Your task to perform on an android device: Empty the shopping cart on newegg. Search for lenovo thinkpad on newegg, select the first entry, add it to the cart, then select checkout. Image 0: 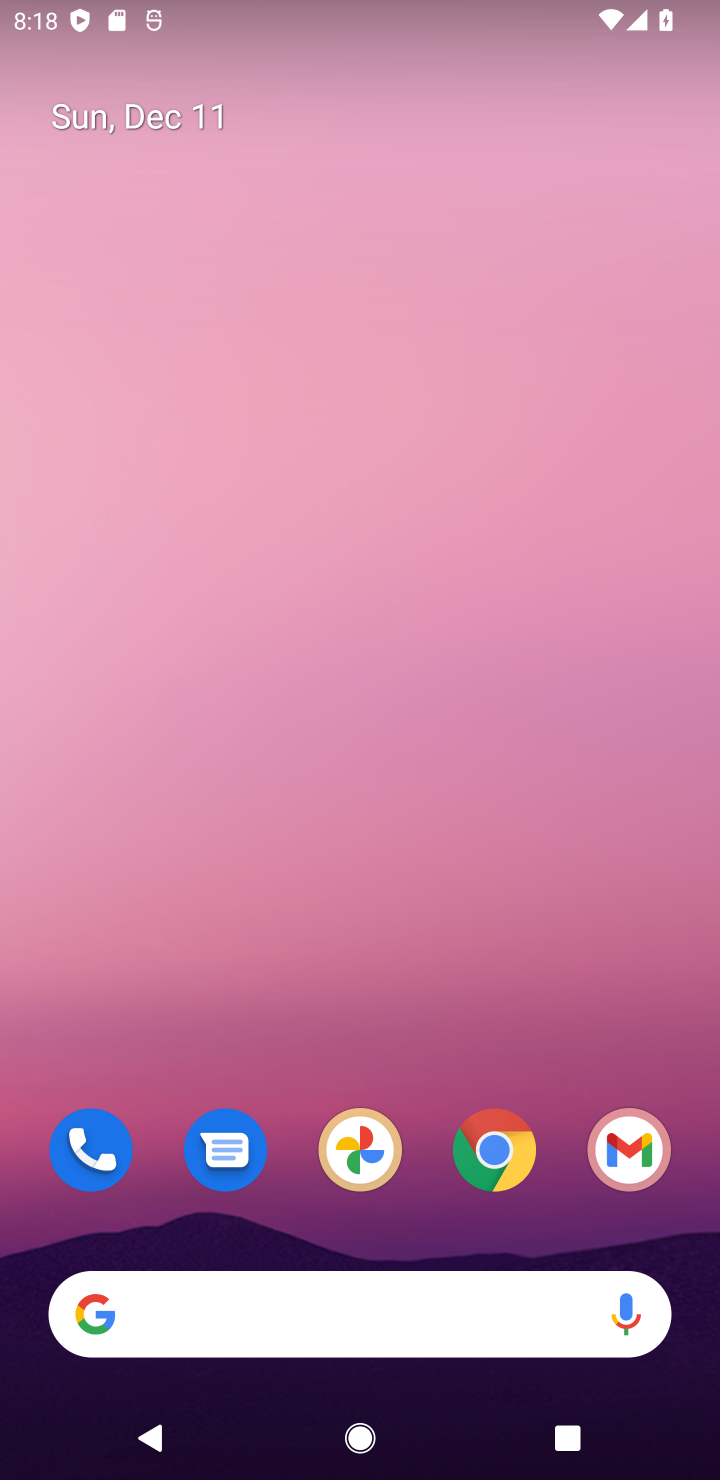
Step 0: click (497, 1152)
Your task to perform on an android device: Empty the shopping cart on newegg. Search for lenovo thinkpad on newegg, select the first entry, add it to the cart, then select checkout. Image 1: 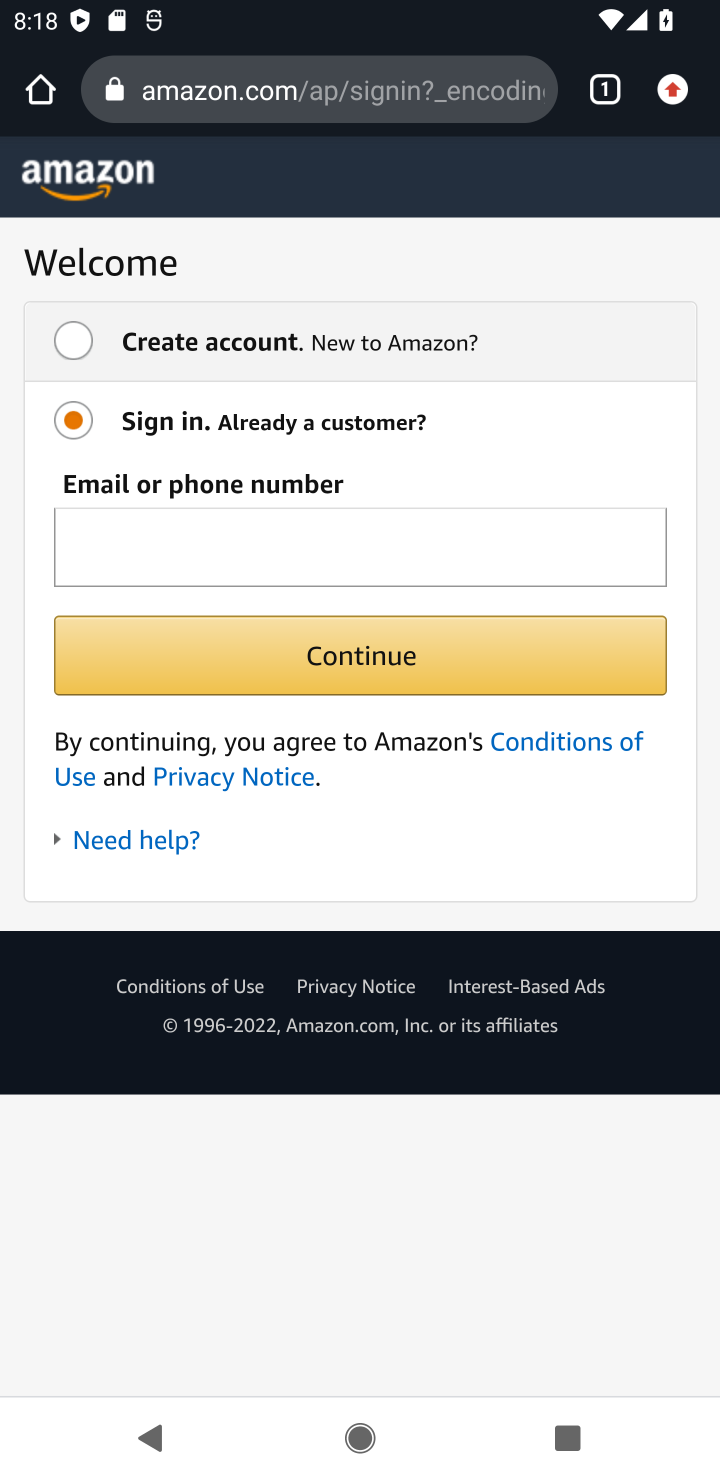
Step 1: click (359, 90)
Your task to perform on an android device: Empty the shopping cart on newegg. Search for lenovo thinkpad on newegg, select the first entry, add it to the cart, then select checkout. Image 2: 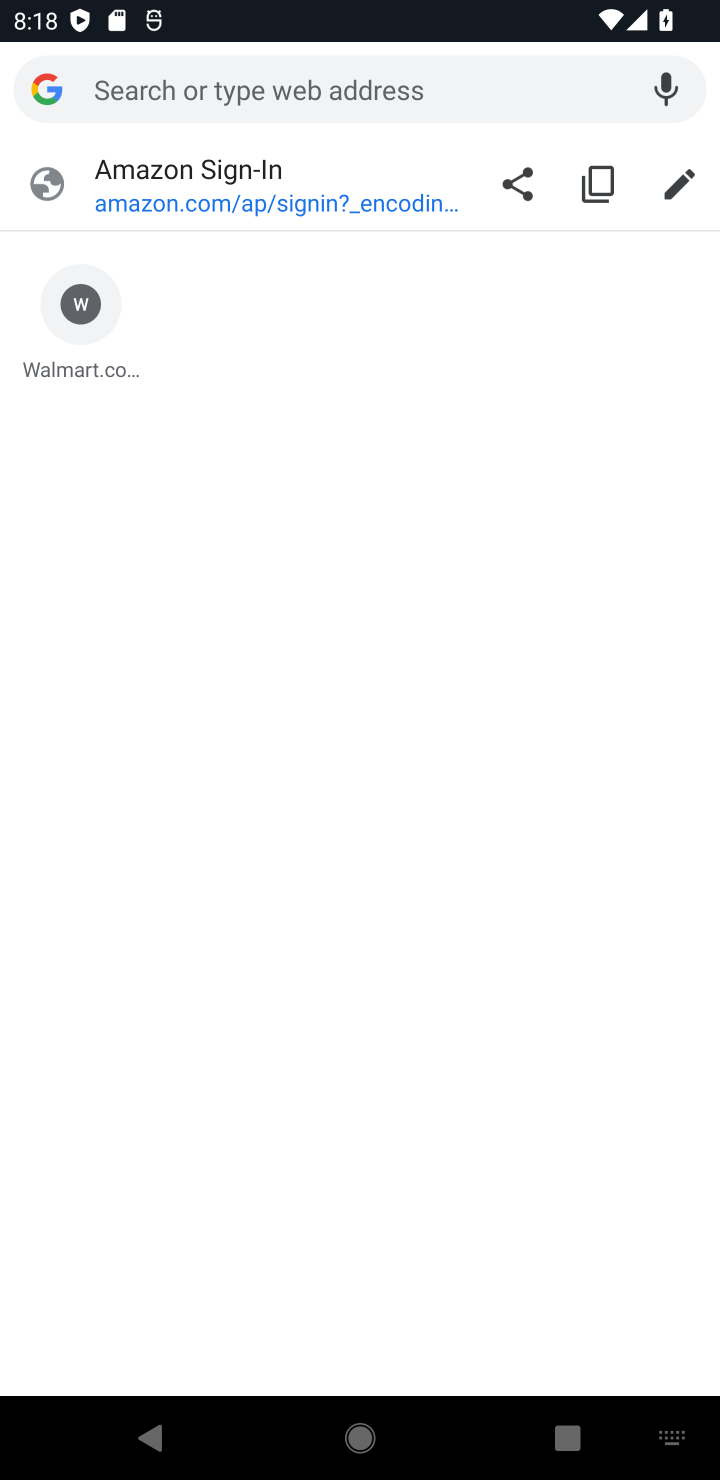
Step 2: type "newegg"
Your task to perform on an android device: Empty the shopping cart on newegg. Search for lenovo thinkpad on newegg, select the first entry, add it to the cart, then select checkout. Image 3: 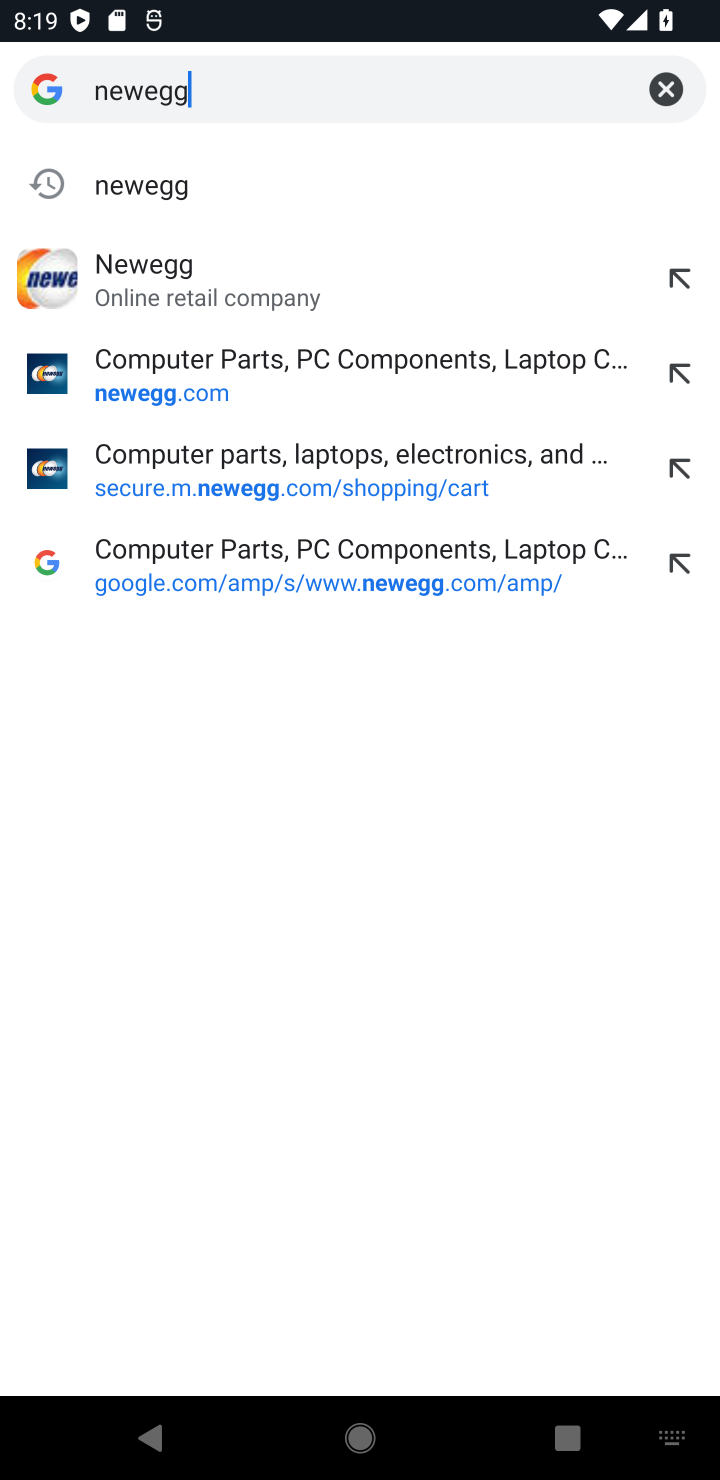
Step 3: click (146, 270)
Your task to perform on an android device: Empty the shopping cart on newegg. Search for lenovo thinkpad on newegg, select the first entry, add it to the cart, then select checkout. Image 4: 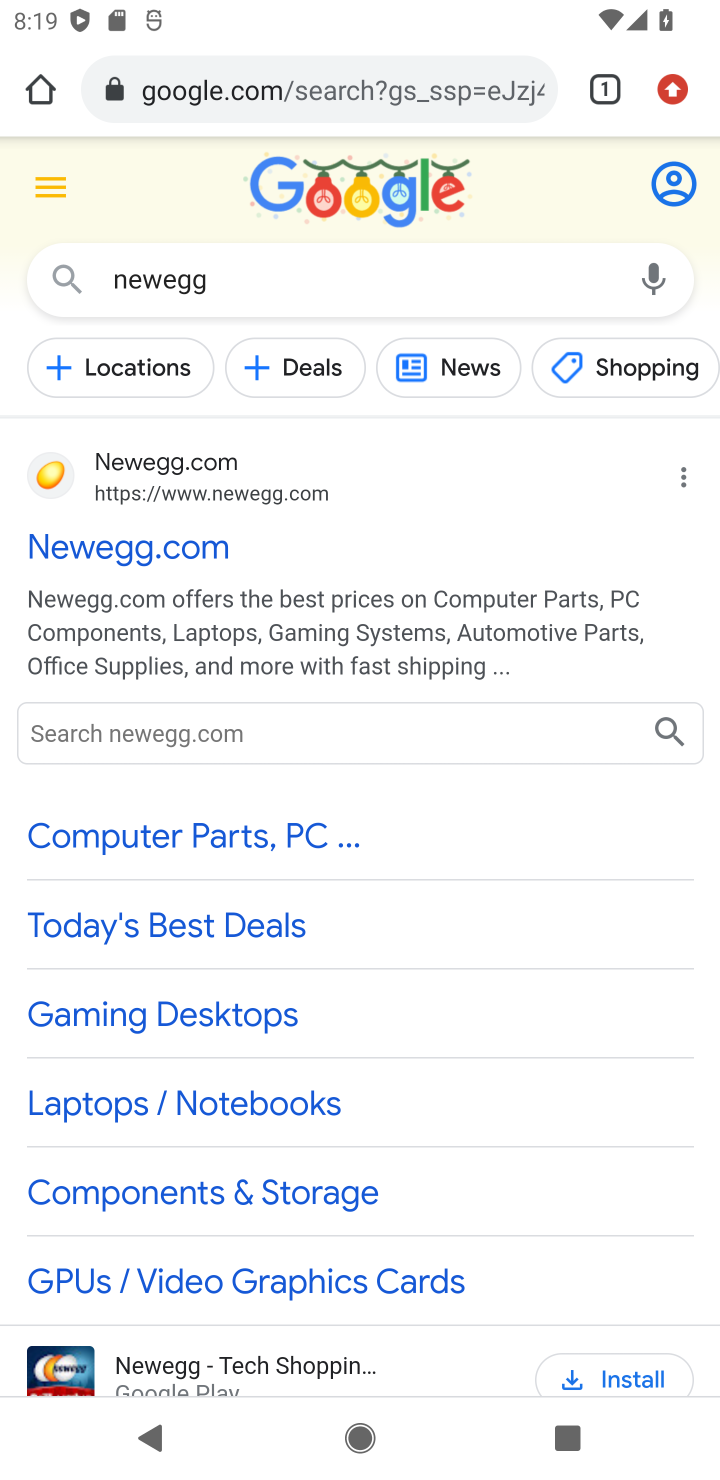
Step 4: click (162, 553)
Your task to perform on an android device: Empty the shopping cart on newegg. Search for lenovo thinkpad on newegg, select the first entry, add it to the cart, then select checkout. Image 5: 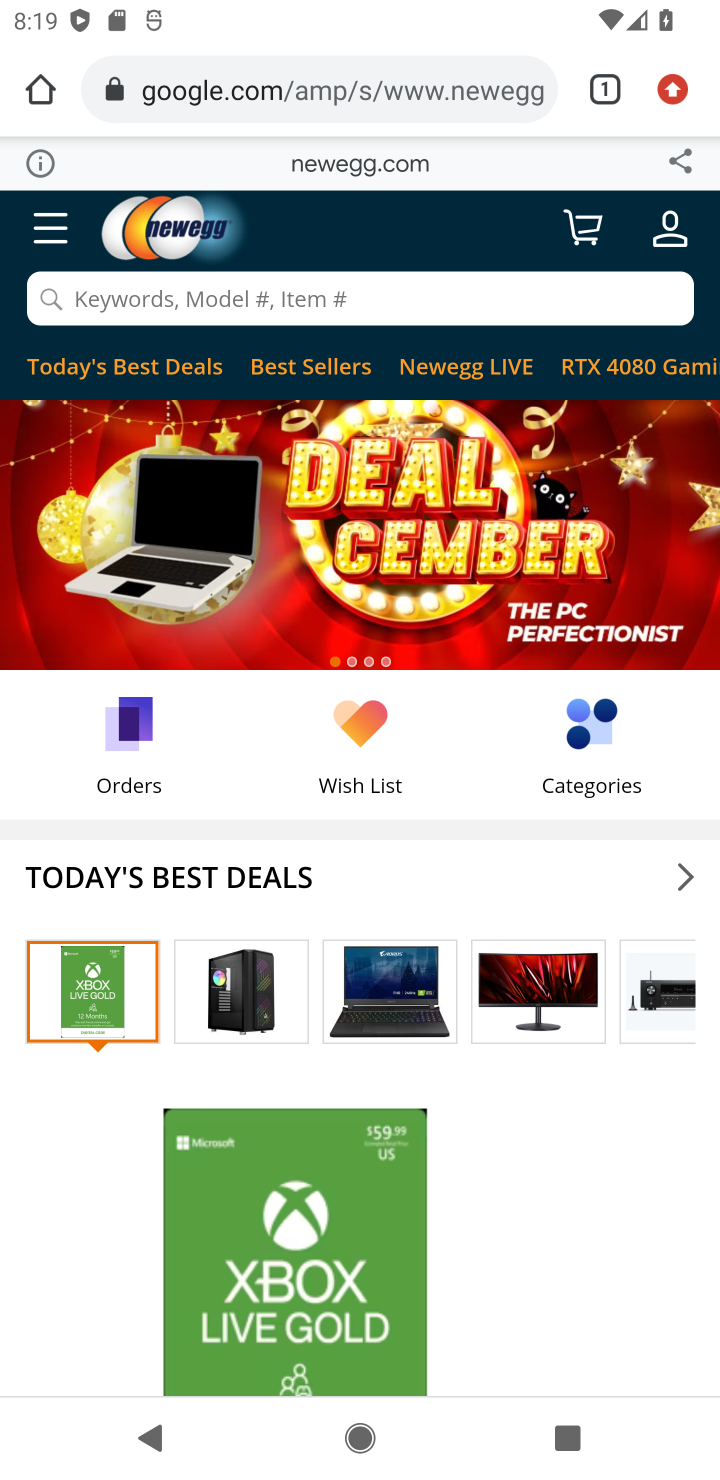
Step 5: click (591, 230)
Your task to perform on an android device: Empty the shopping cart on newegg. Search for lenovo thinkpad on newegg, select the first entry, add it to the cart, then select checkout. Image 6: 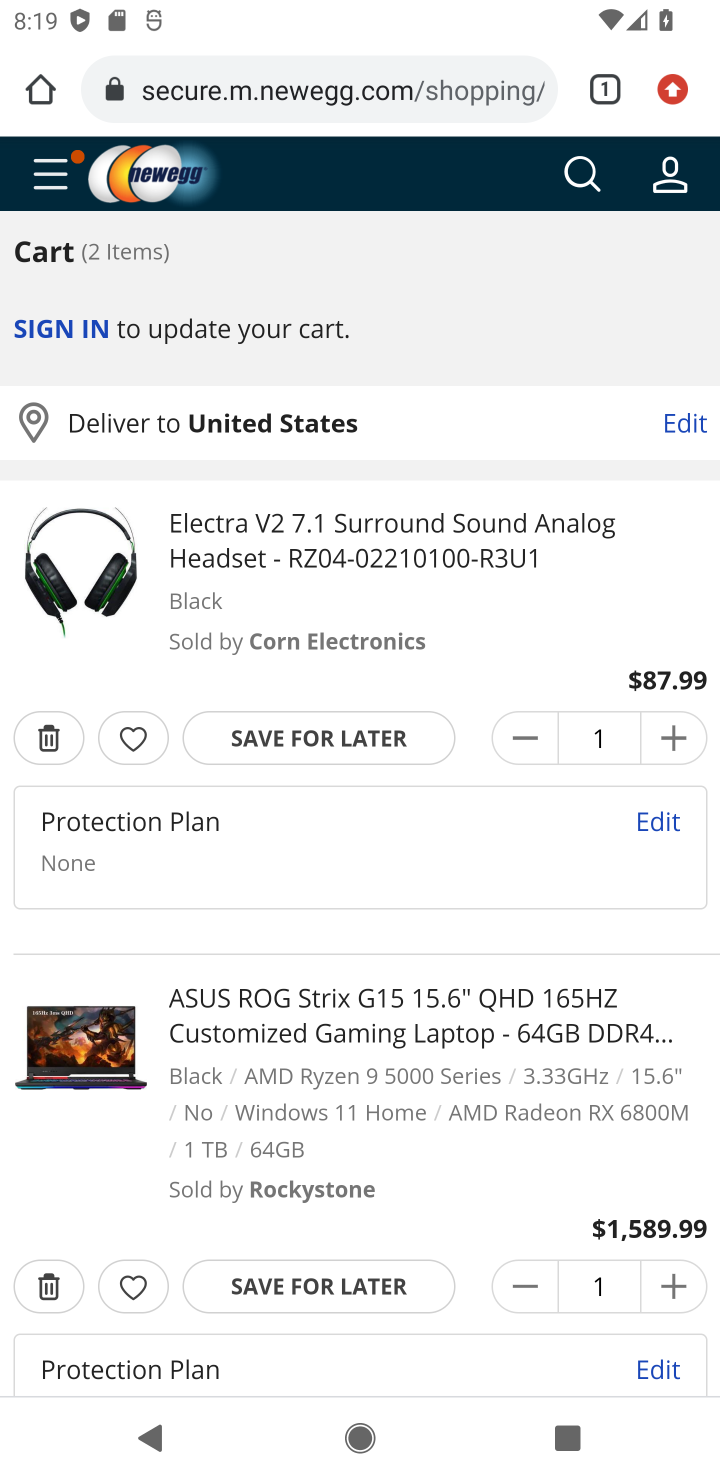
Step 6: click (35, 739)
Your task to perform on an android device: Empty the shopping cart on newegg. Search for lenovo thinkpad on newegg, select the first entry, add it to the cart, then select checkout. Image 7: 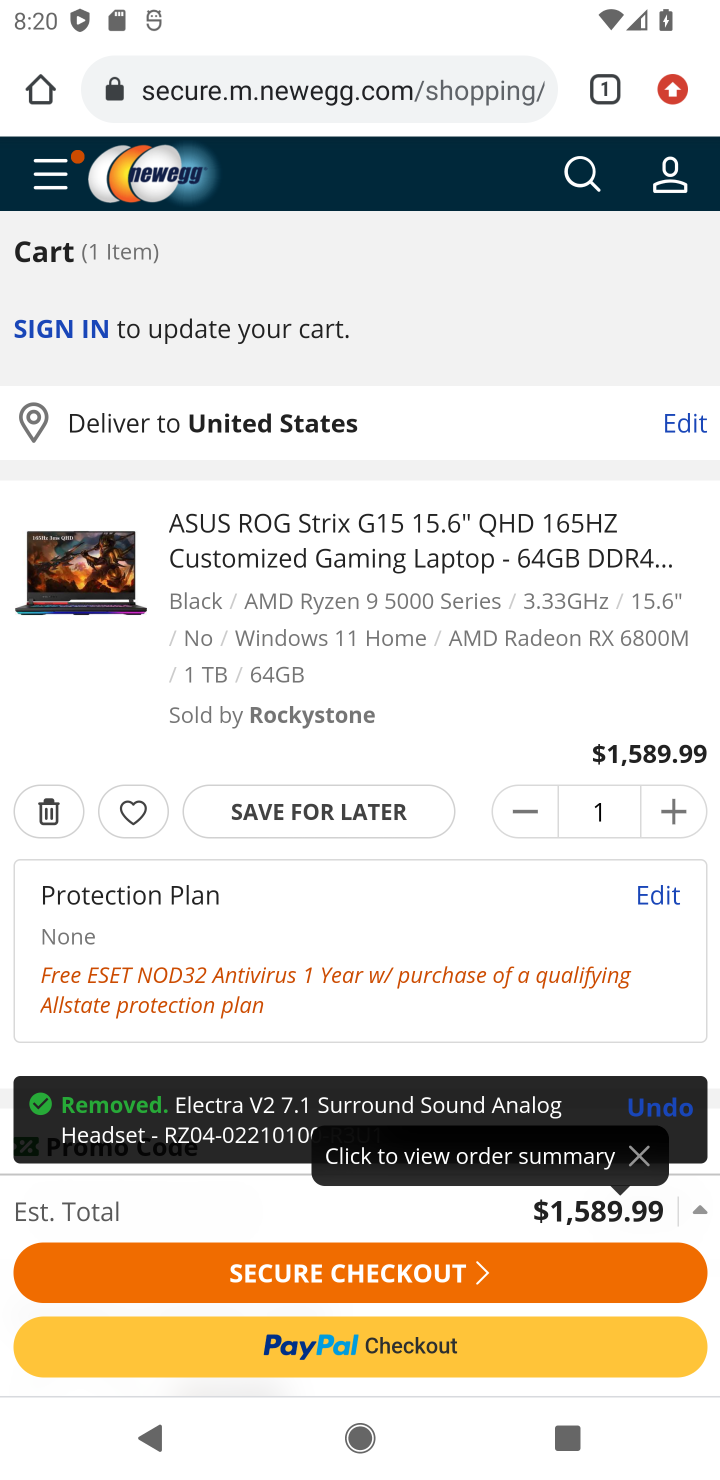
Step 7: click (34, 821)
Your task to perform on an android device: Empty the shopping cart on newegg. Search for lenovo thinkpad on newegg, select the first entry, add it to the cart, then select checkout. Image 8: 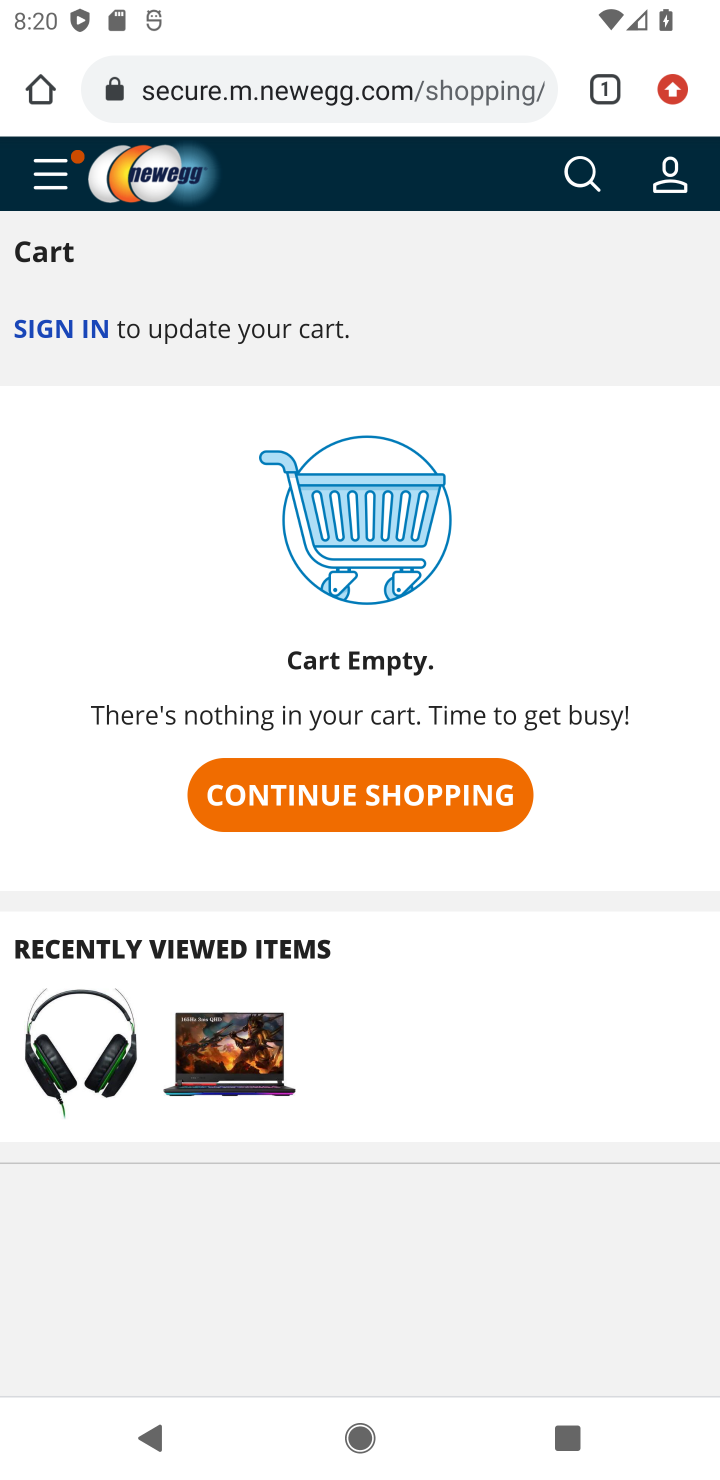
Step 8: click (408, 795)
Your task to perform on an android device: Empty the shopping cart on newegg. Search for lenovo thinkpad on newegg, select the first entry, add it to the cart, then select checkout. Image 9: 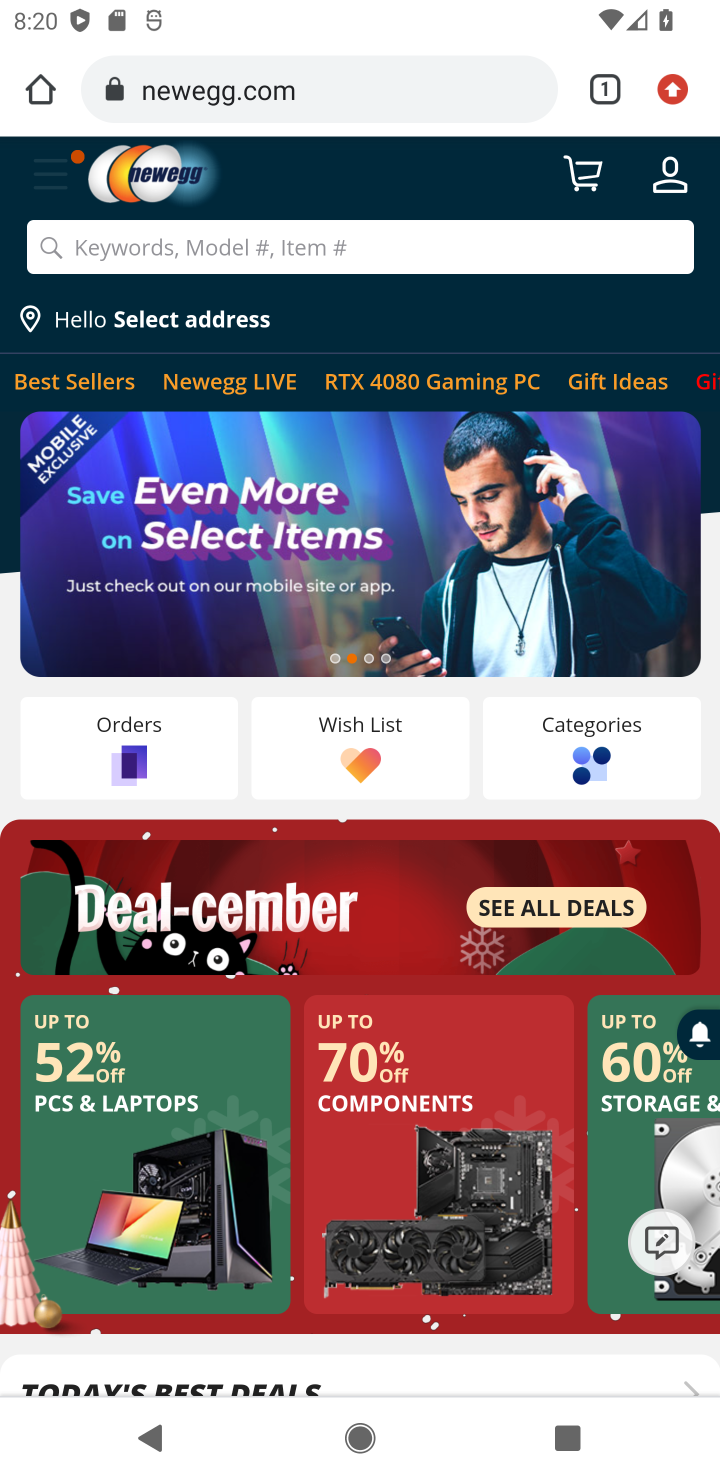
Step 9: click (297, 243)
Your task to perform on an android device: Empty the shopping cart on newegg. Search for lenovo thinkpad on newegg, select the first entry, add it to the cart, then select checkout. Image 10: 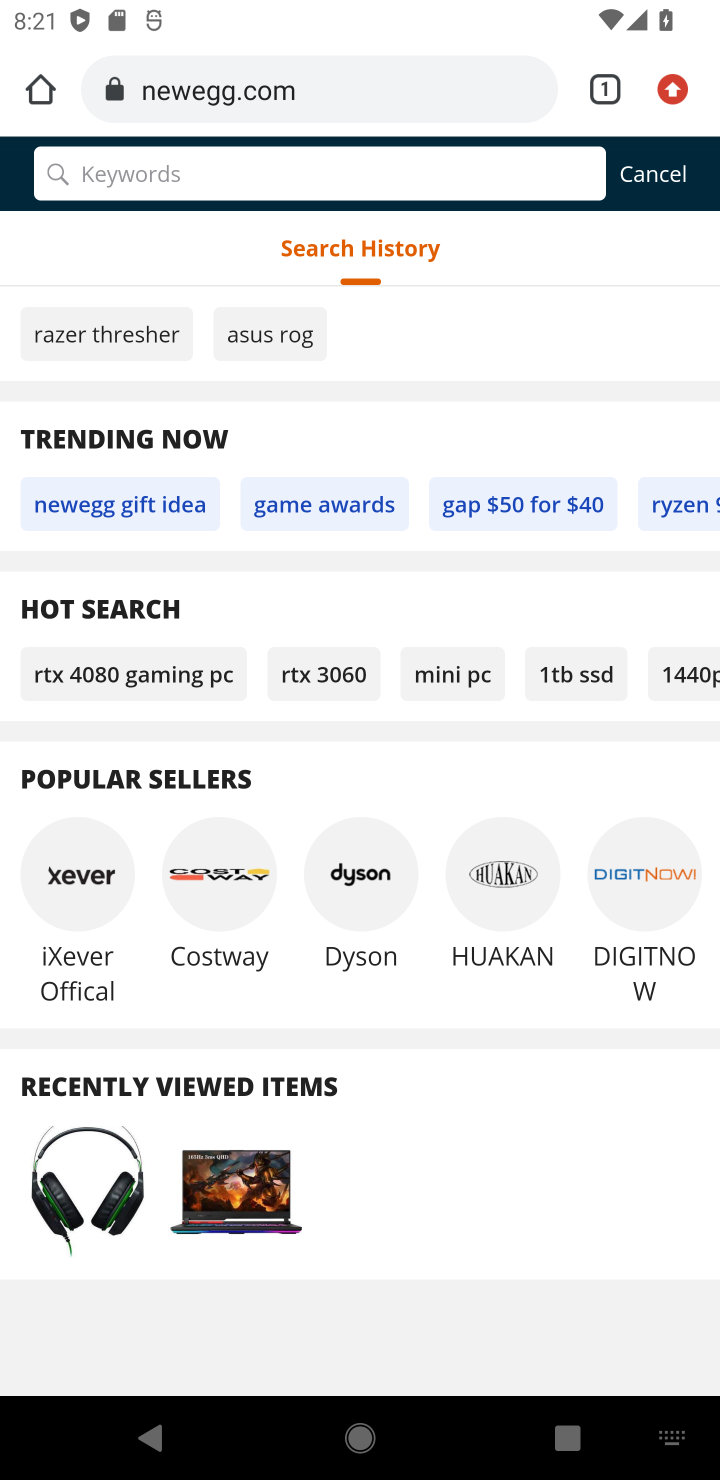
Step 10: type "lenovo thinkpad "
Your task to perform on an android device: Empty the shopping cart on newegg. Search for lenovo thinkpad on newegg, select the first entry, add it to the cart, then select checkout. Image 11: 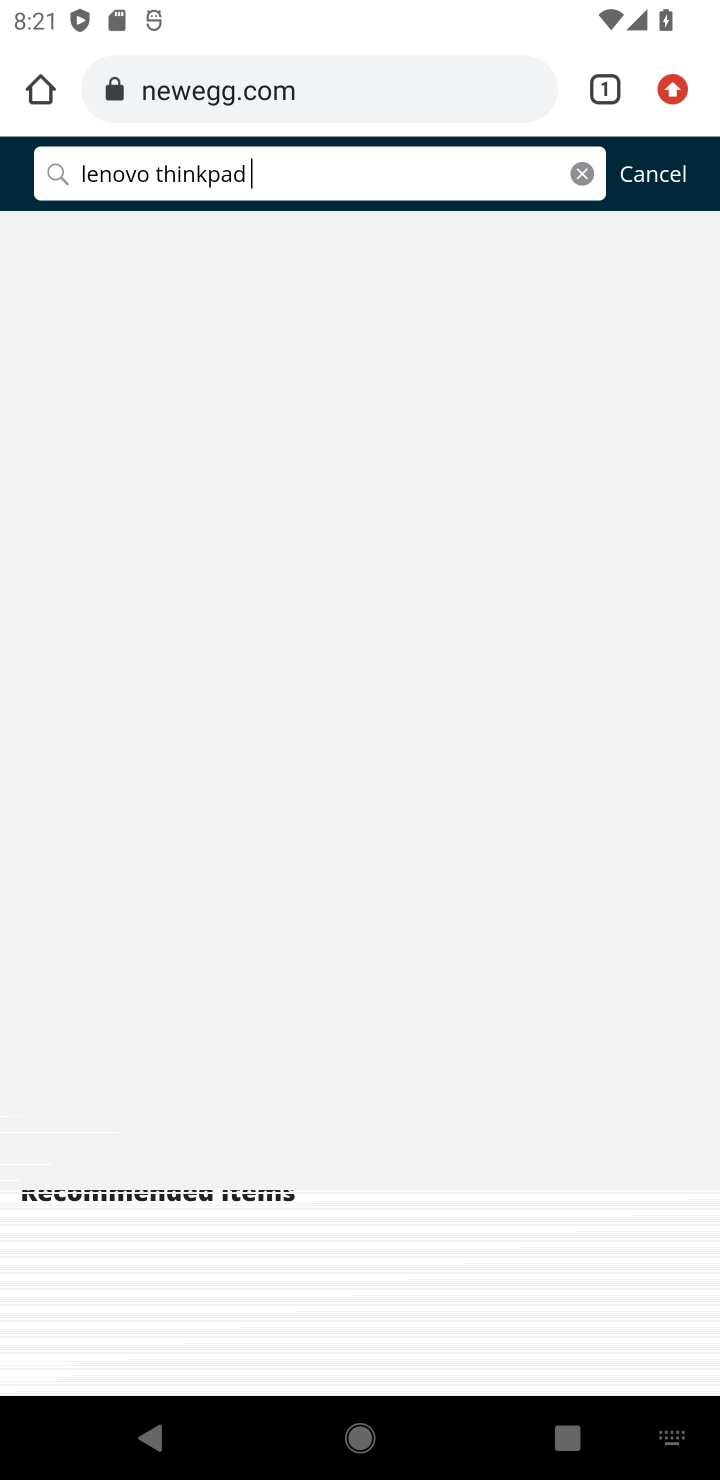
Step 11: click (205, 563)
Your task to perform on an android device: Empty the shopping cart on newegg. Search for lenovo thinkpad on newegg, select the first entry, add it to the cart, then select checkout. Image 12: 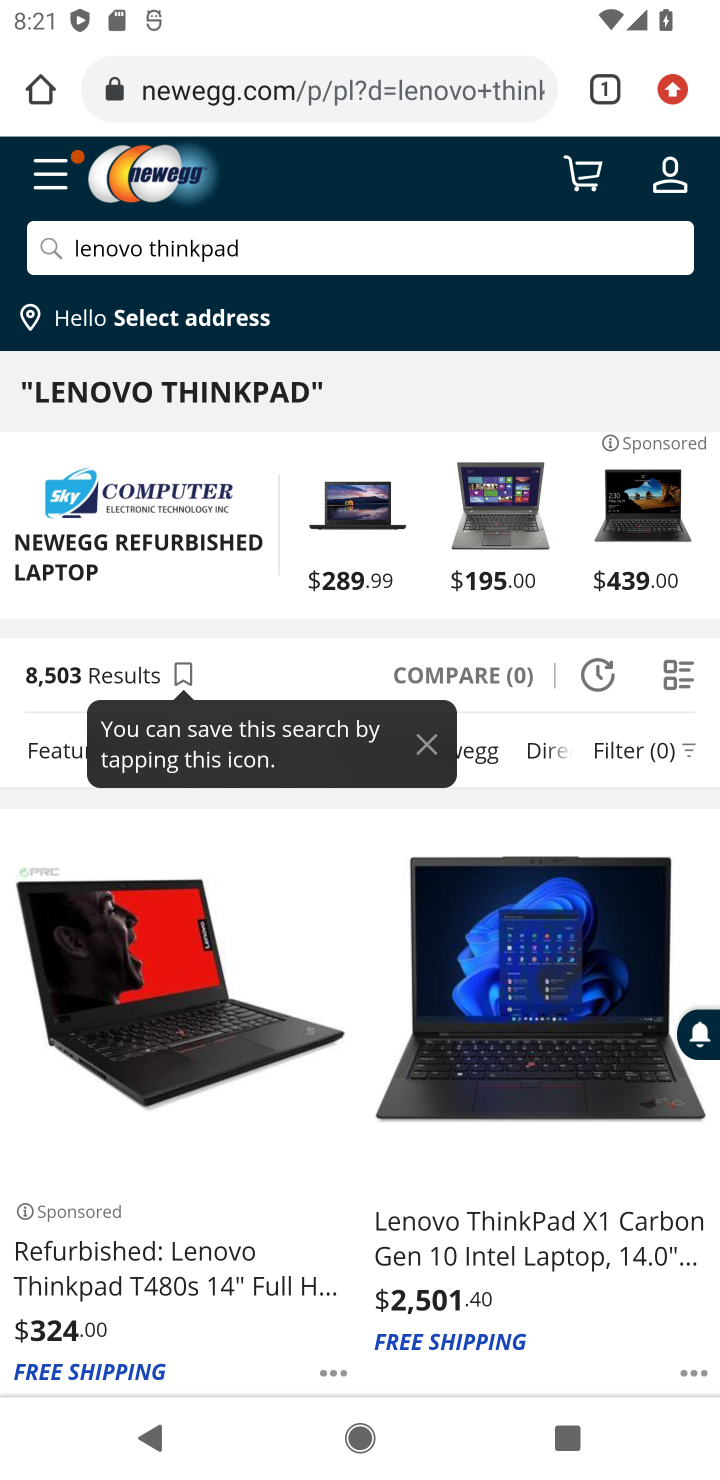
Step 12: drag from (239, 1128) to (259, 822)
Your task to perform on an android device: Empty the shopping cart on newegg. Search for lenovo thinkpad on newegg, select the first entry, add it to the cart, then select checkout. Image 13: 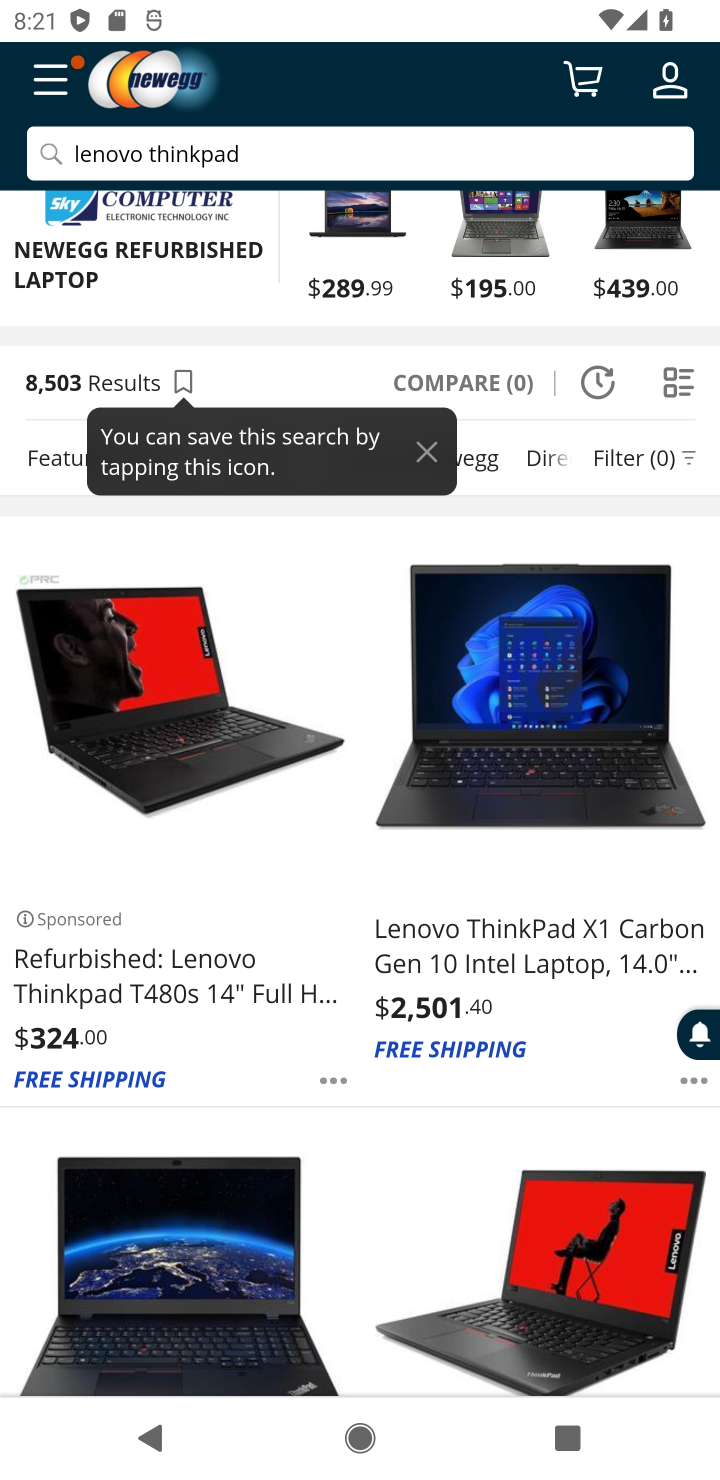
Step 13: click (200, 986)
Your task to perform on an android device: Empty the shopping cart on newegg. Search for lenovo thinkpad on newegg, select the first entry, add it to the cart, then select checkout. Image 14: 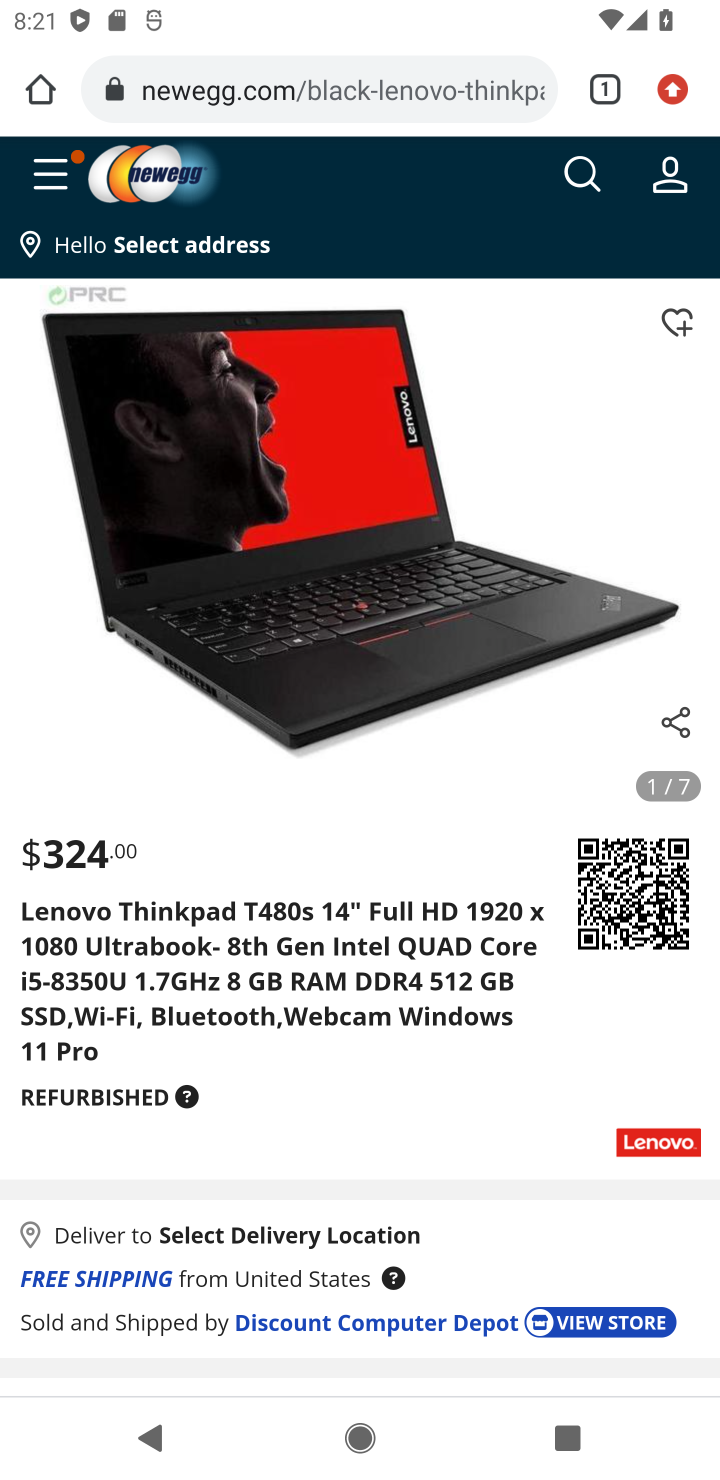
Step 14: drag from (469, 1239) to (519, 718)
Your task to perform on an android device: Empty the shopping cart on newegg. Search for lenovo thinkpad on newegg, select the first entry, add it to the cart, then select checkout. Image 15: 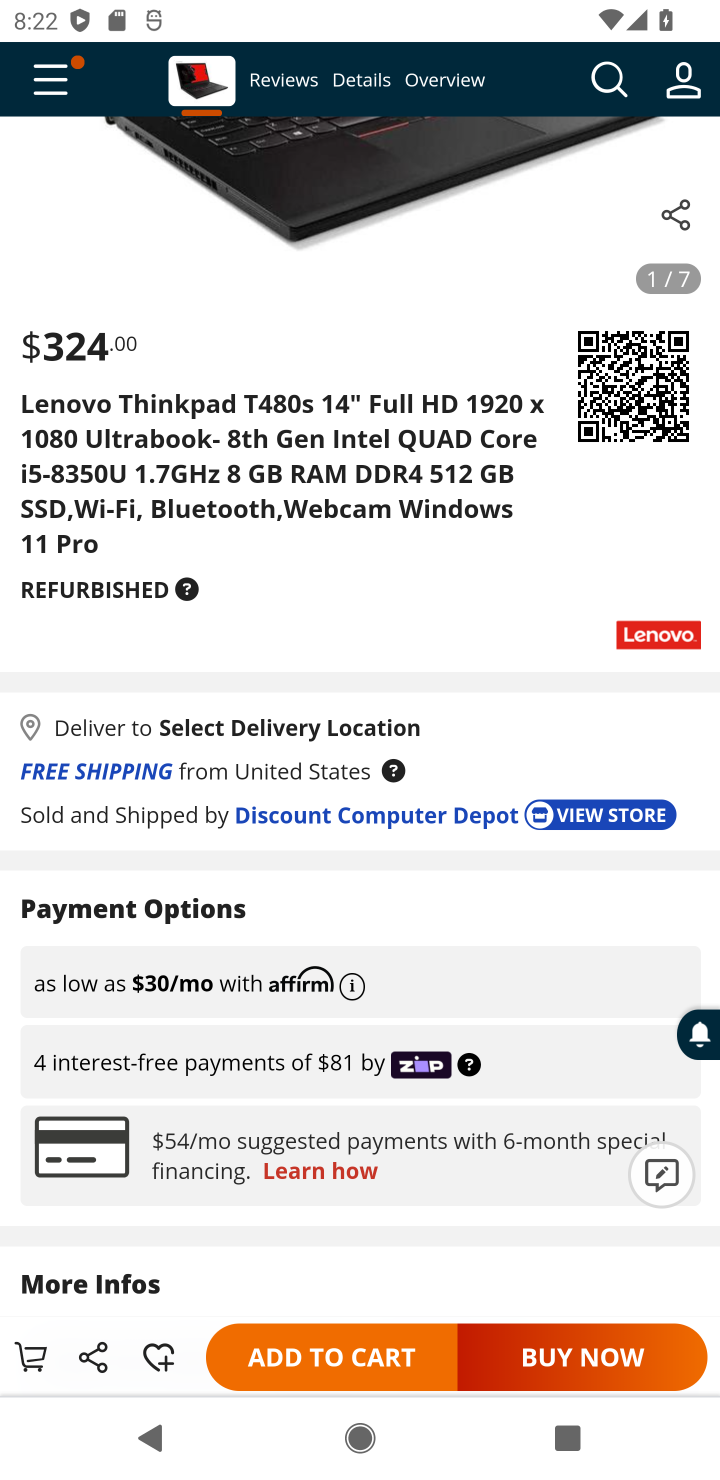
Step 15: drag from (426, 1266) to (470, 986)
Your task to perform on an android device: Empty the shopping cart on newegg. Search for lenovo thinkpad on newegg, select the first entry, add it to the cart, then select checkout. Image 16: 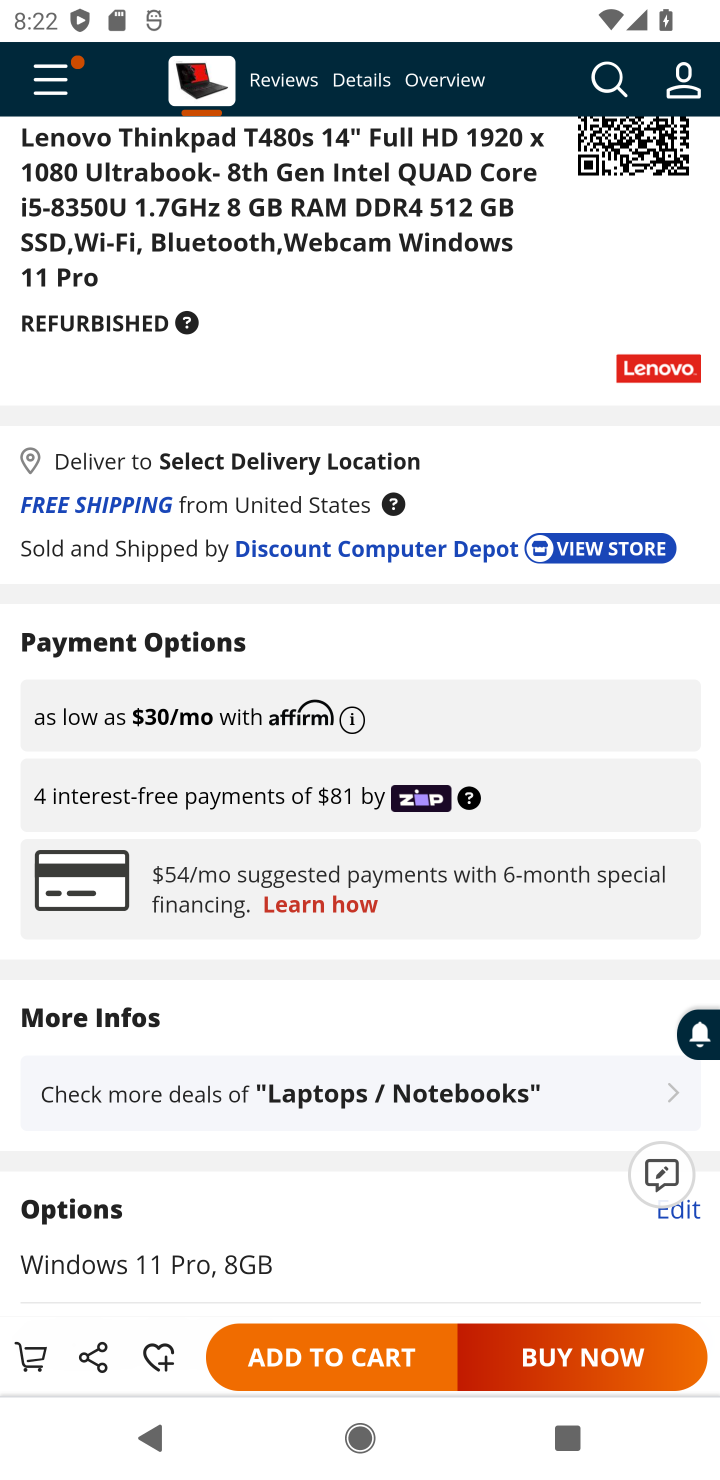
Step 16: click (334, 1353)
Your task to perform on an android device: Empty the shopping cart on newegg. Search for lenovo thinkpad on newegg, select the first entry, add it to the cart, then select checkout. Image 17: 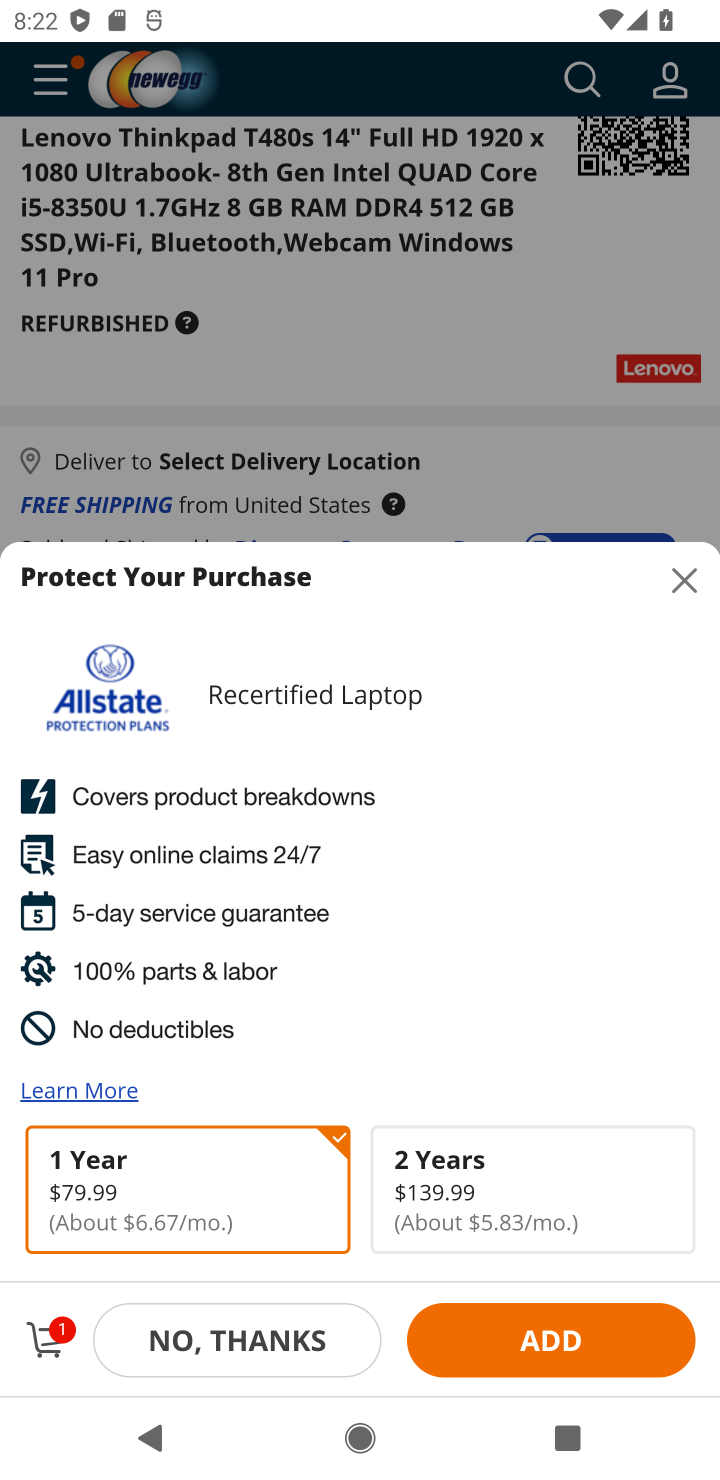
Step 17: click (49, 1334)
Your task to perform on an android device: Empty the shopping cart on newegg. Search for lenovo thinkpad on newegg, select the first entry, add it to the cart, then select checkout. Image 18: 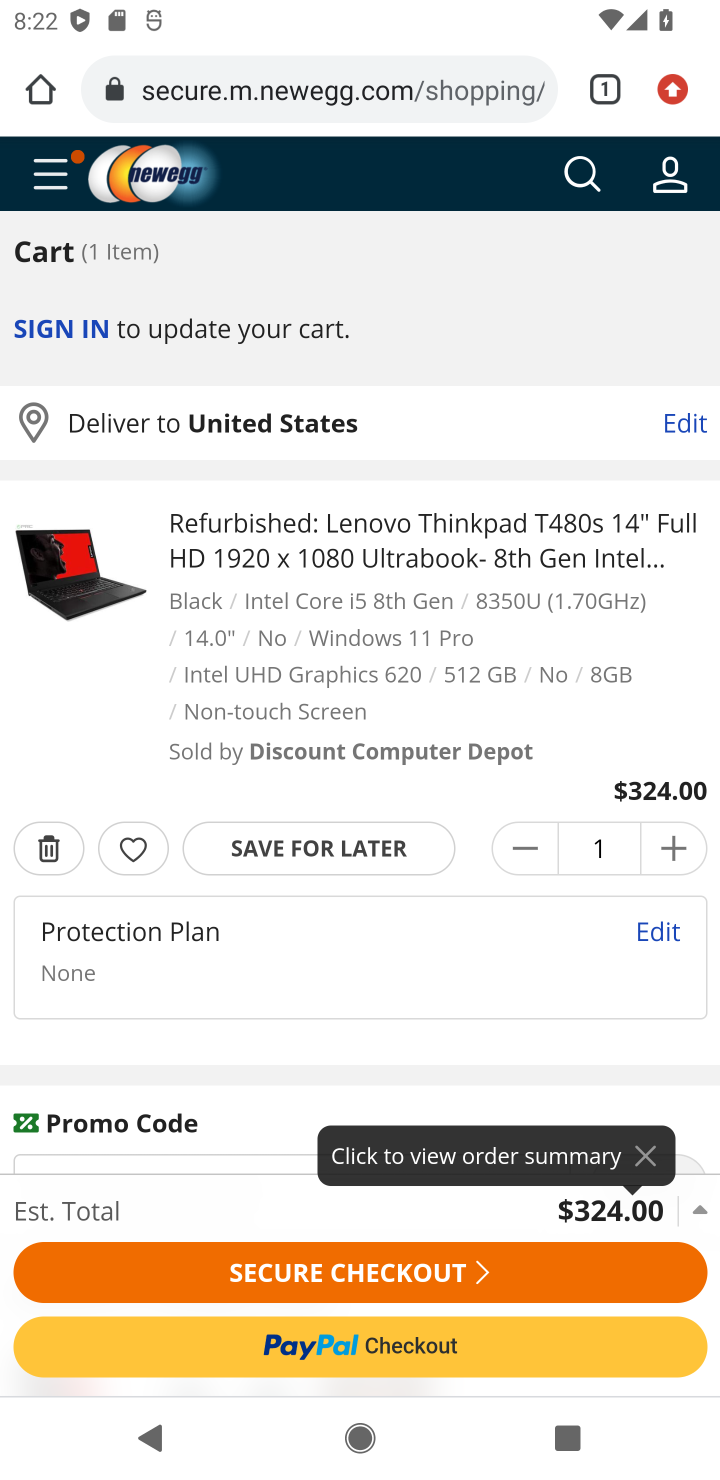
Step 18: click (360, 1269)
Your task to perform on an android device: Empty the shopping cart on newegg. Search for lenovo thinkpad on newegg, select the first entry, add it to the cart, then select checkout. Image 19: 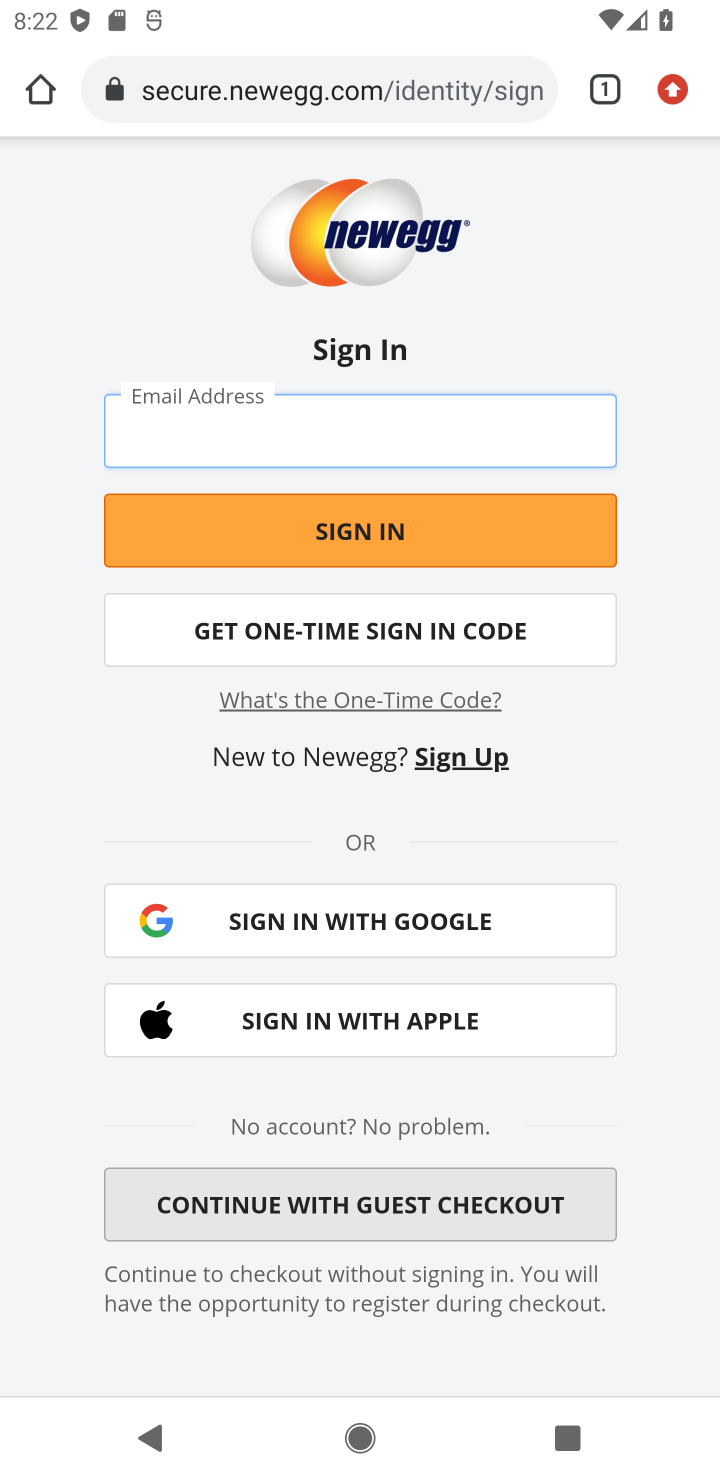
Step 19: task complete